Your task to perform on an android device: What is the recent news? Image 0: 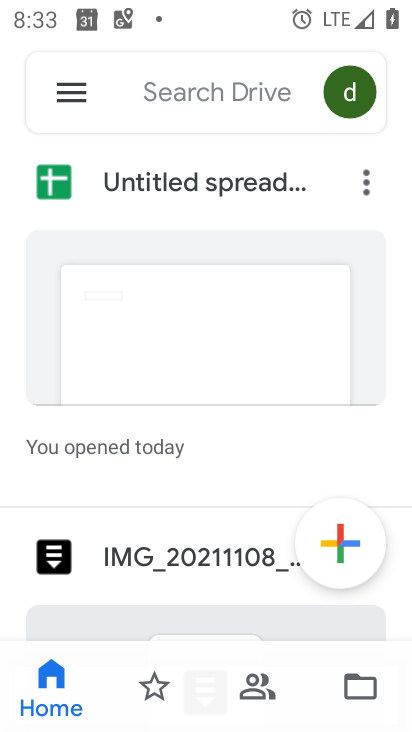
Step 0: press home button
Your task to perform on an android device: What is the recent news? Image 1: 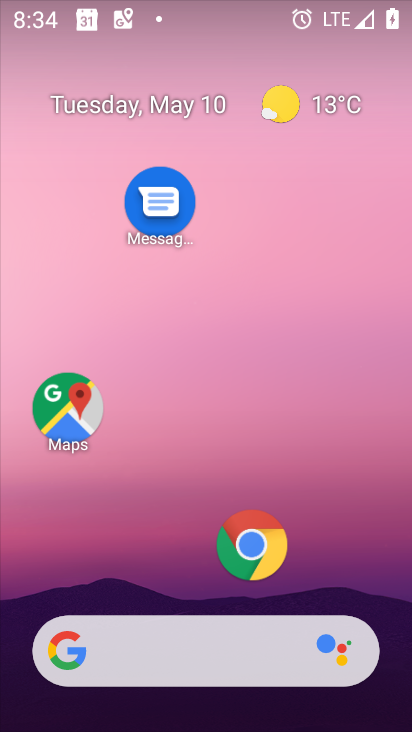
Step 1: task complete